Your task to perform on an android device: Open Youtube and go to the subscriptions tab Image 0: 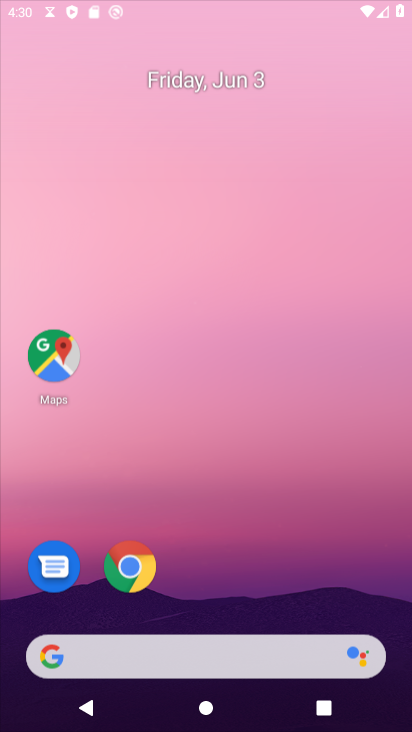
Step 0: drag from (235, 2) to (251, 276)
Your task to perform on an android device: Open Youtube and go to the subscriptions tab Image 1: 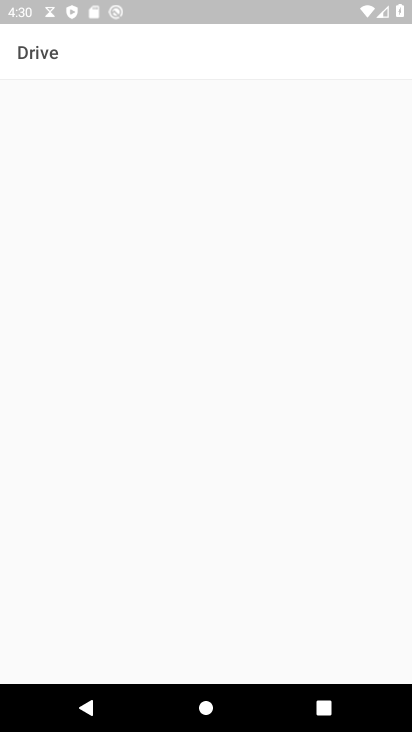
Step 1: press home button
Your task to perform on an android device: Open Youtube and go to the subscriptions tab Image 2: 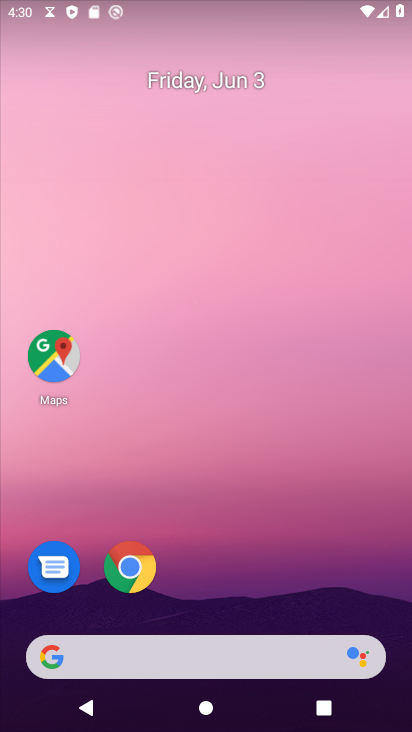
Step 2: drag from (275, 562) to (226, 4)
Your task to perform on an android device: Open Youtube and go to the subscriptions tab Image 3: 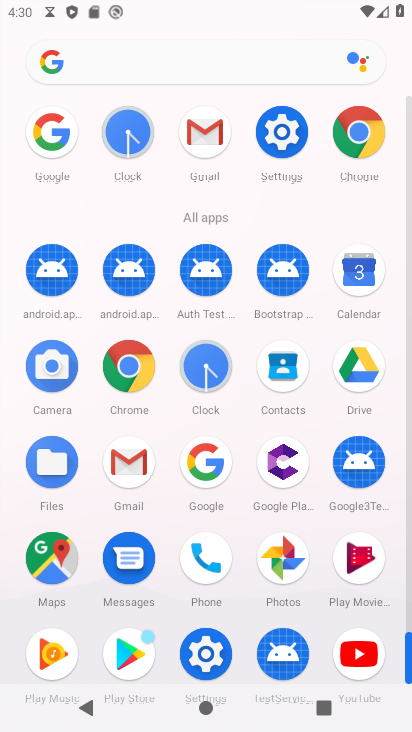
Step 3: drag from (242, 523) to (237, 262)
Your task to perform on an android device: Open Youtube and go to the subscriptions tab Image 4: 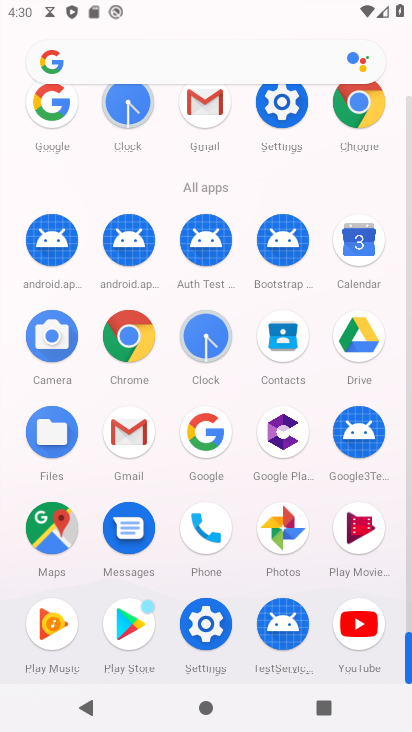
Step 4: click (359, 618)
Your task to perform on an android device: Open Youtube and go to the subscriptions tab Image 5: 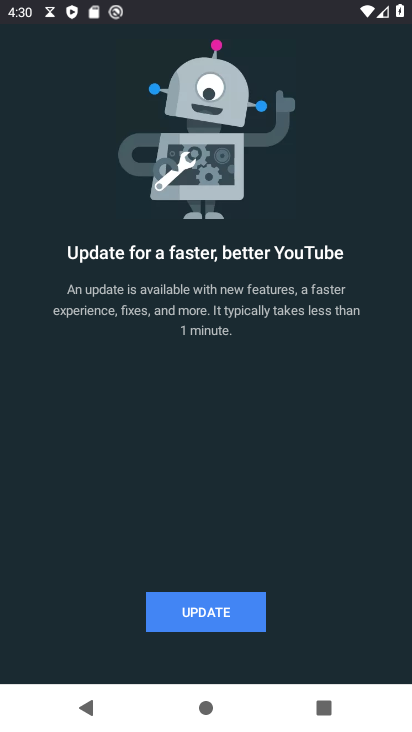
Step 5: click (200, 611)
Your task to perform on an android device: Open Youtube and go to the subscriptions tab Image 6: 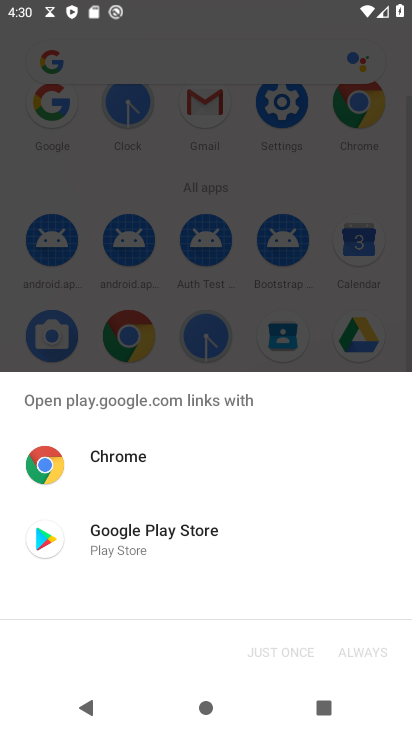
Step 6: click (177, 536)
Your task to perform on an android device: Open Youtube and go to the subscriptions tab Image 7: 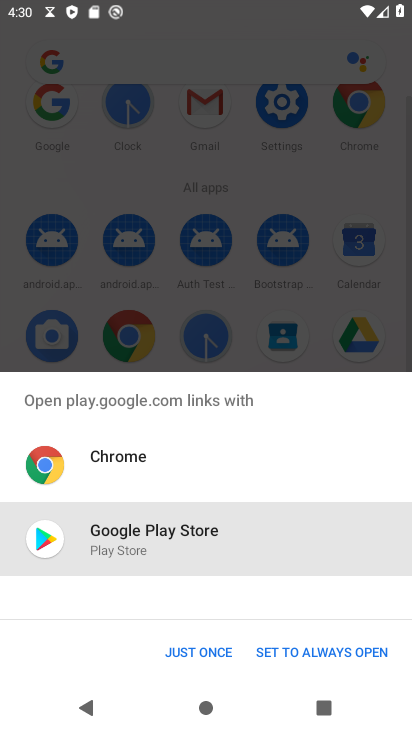
Step 7: click (205, 652)
Your task to perform on an android device: Open Youtube and go to the subscriptions tab Image 8: 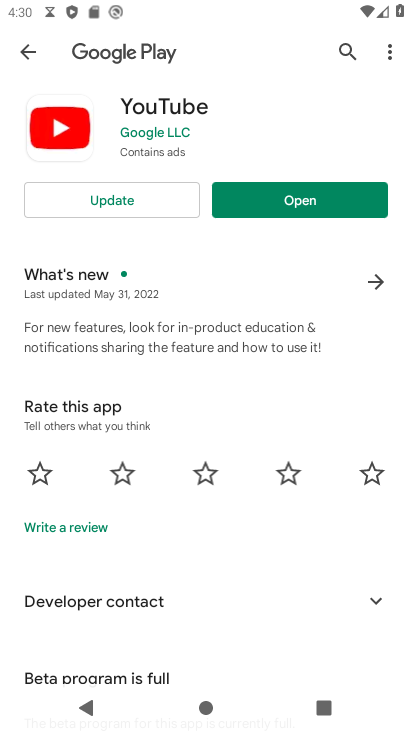
Step 8: click (160, 209)
Your task to perform on an android device: Open Youtube and go to the subscriptions tab Image 9: 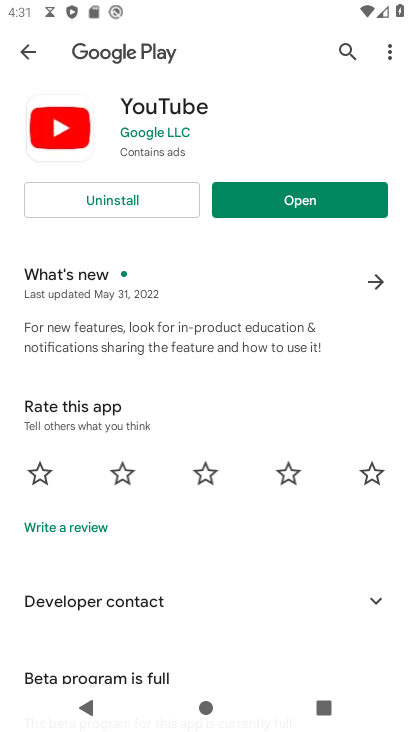
Step 9: click (292, 198)
Your task to perform on an android device: Open Youtube and go to the subscriptions tab Image 10: 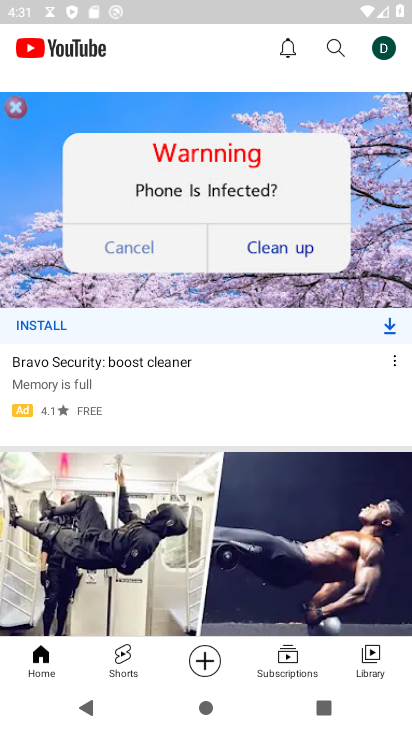
Step 10: click (285, 655)
Your task to perform on an android device: Open Youtube and go to the subscriptions tab Image 11: 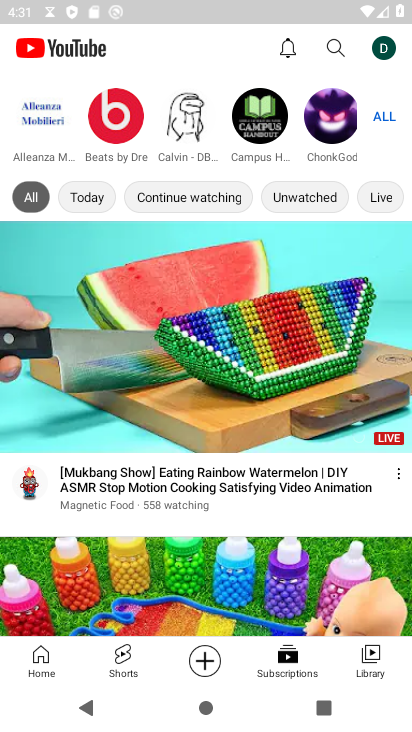
Step 11: task complete